Your task to perform on an android device: What's the weather going to be this weekend? Image 0: 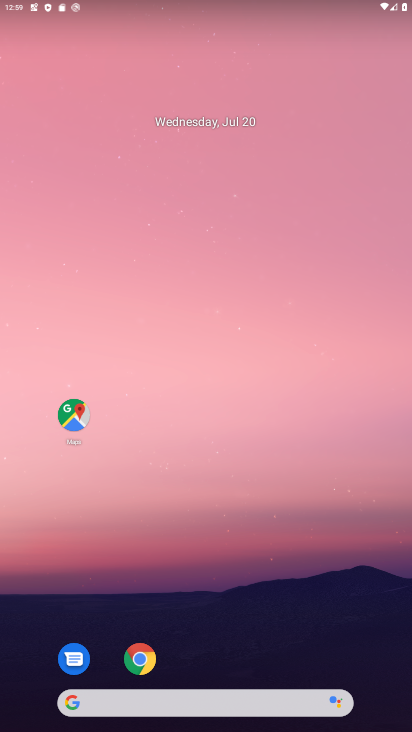
Step 0: drag from (362, 667) to (202, 4)
Your task to perform on an android device: What's the weather going to be this weekend? Image 1: 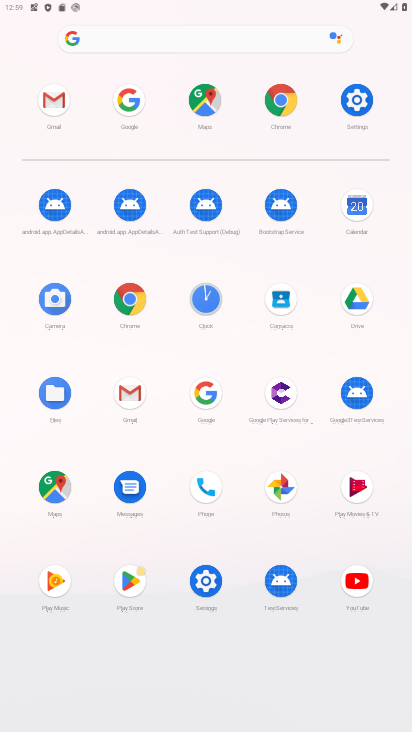
Step 1: click (209, 407)
Your task to perform on an android device: What's the weather going to be this weekend? Image 2: 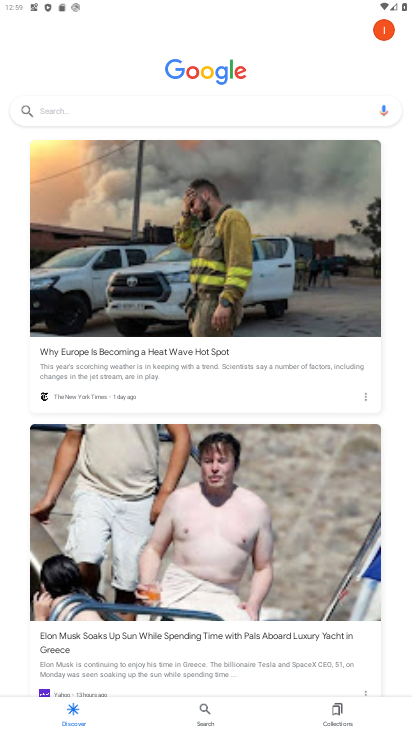
Step 2: click (90, 102)
Your task to perform on an android device: What's the weather going to be this weekend? Image 3: 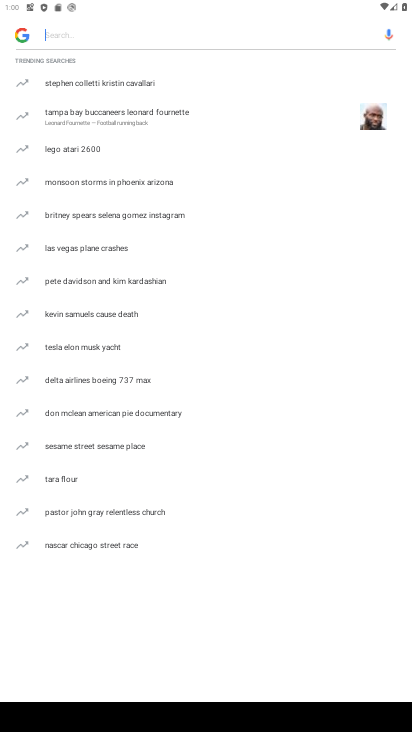
Step 3: type "What's the weather going to be this weekend?"
Your task to perform on an android device: What's the weather going to be this weekend? Image 4: 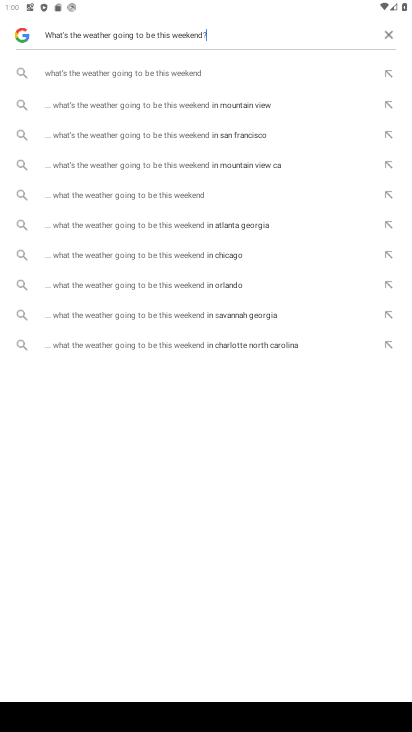
Step 4: click (150, 69)
Your task to perform on an android device: What's the weather going to be this weekend? Image 5: 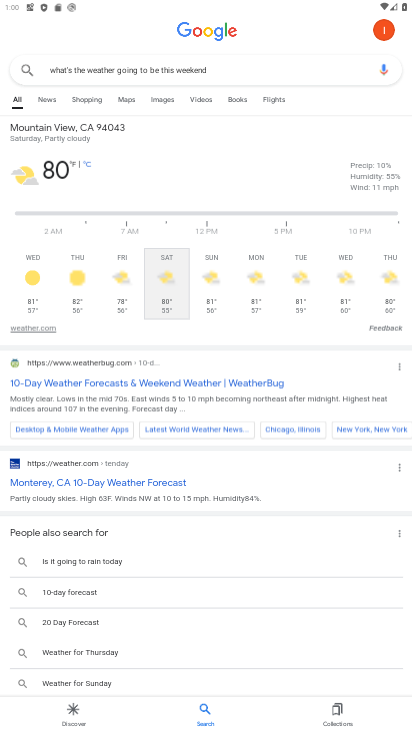
Step 5: task complete